Your task to perform on an android device: Add lg ultragear to the cart on bestbuy.com, then select checkout. Image 0: 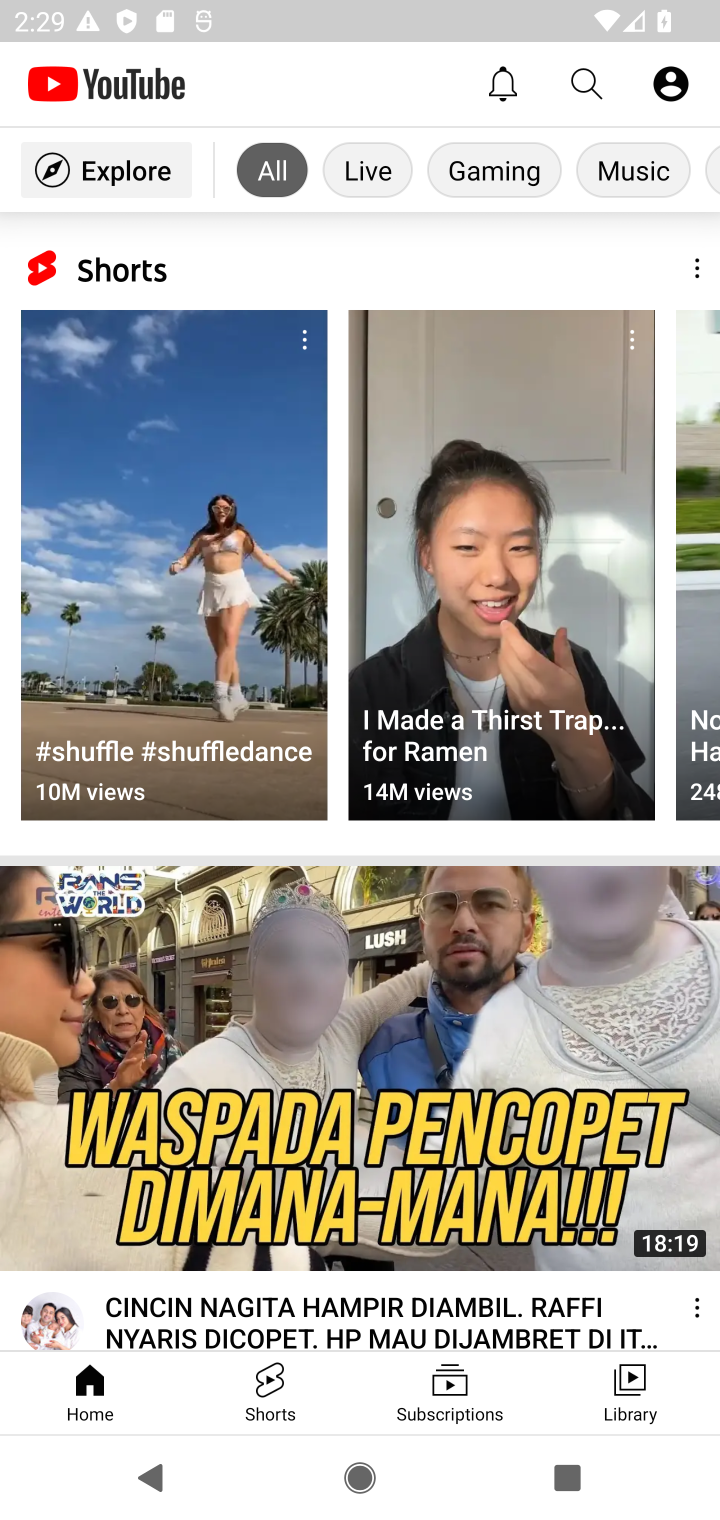
Step 0: press home button
Your task to perform on an android device: Add lg ultragear to the cart on bestbuy.com, then select checkout. Image 1: 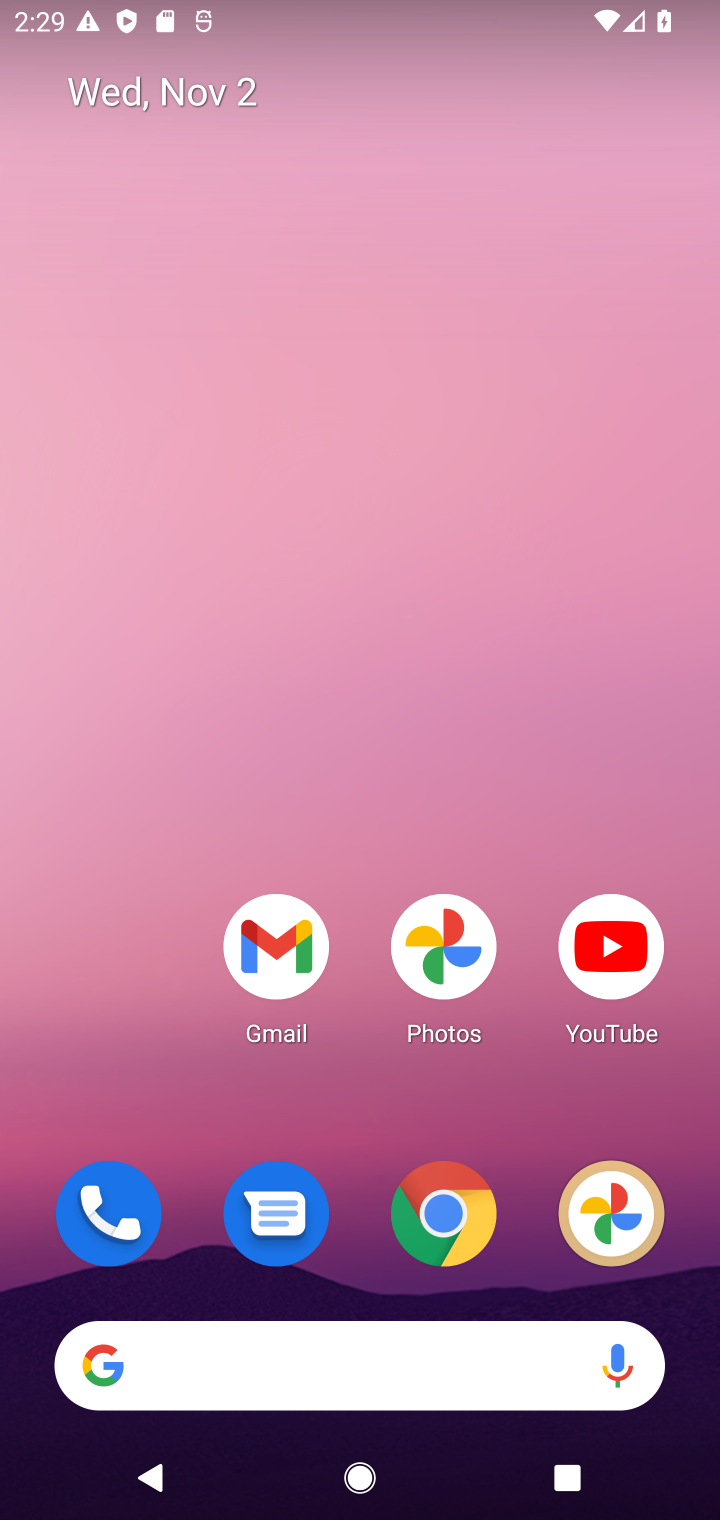
Step 1: click (442, 1203)
Your task to perform on an android device: Add lg ultragear to the cart on bestbuy.com, then select checkout. Image 2: 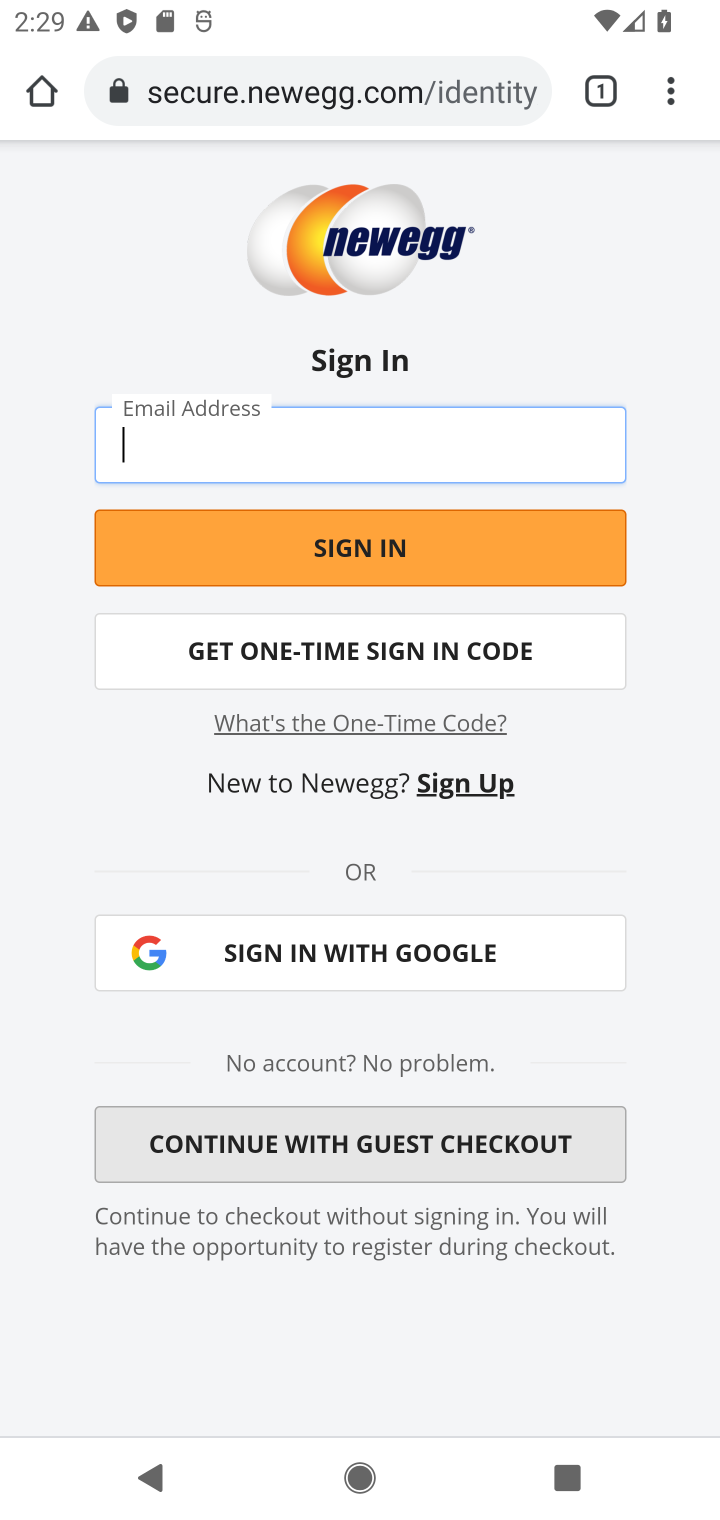
Step 2: click (295, 104)
Your task to perform on an android device: Add lg ultragear to the cart on bestbuy.com, then select checkout. Image 3: 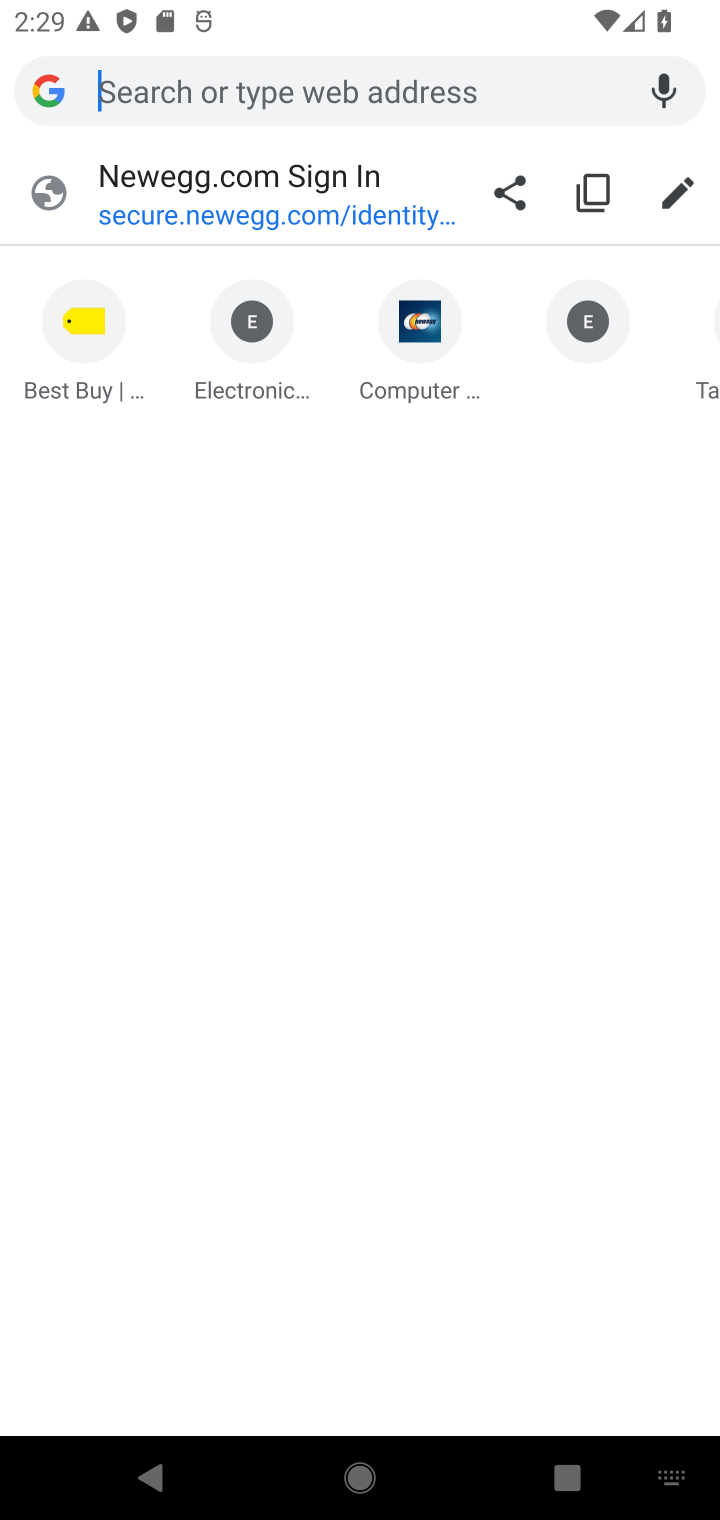
Step 3: click (77, 342)
Your task to perform on an android device: Add lg ultragear to the cart on bestbuy.com, then select checkout. Image 4: 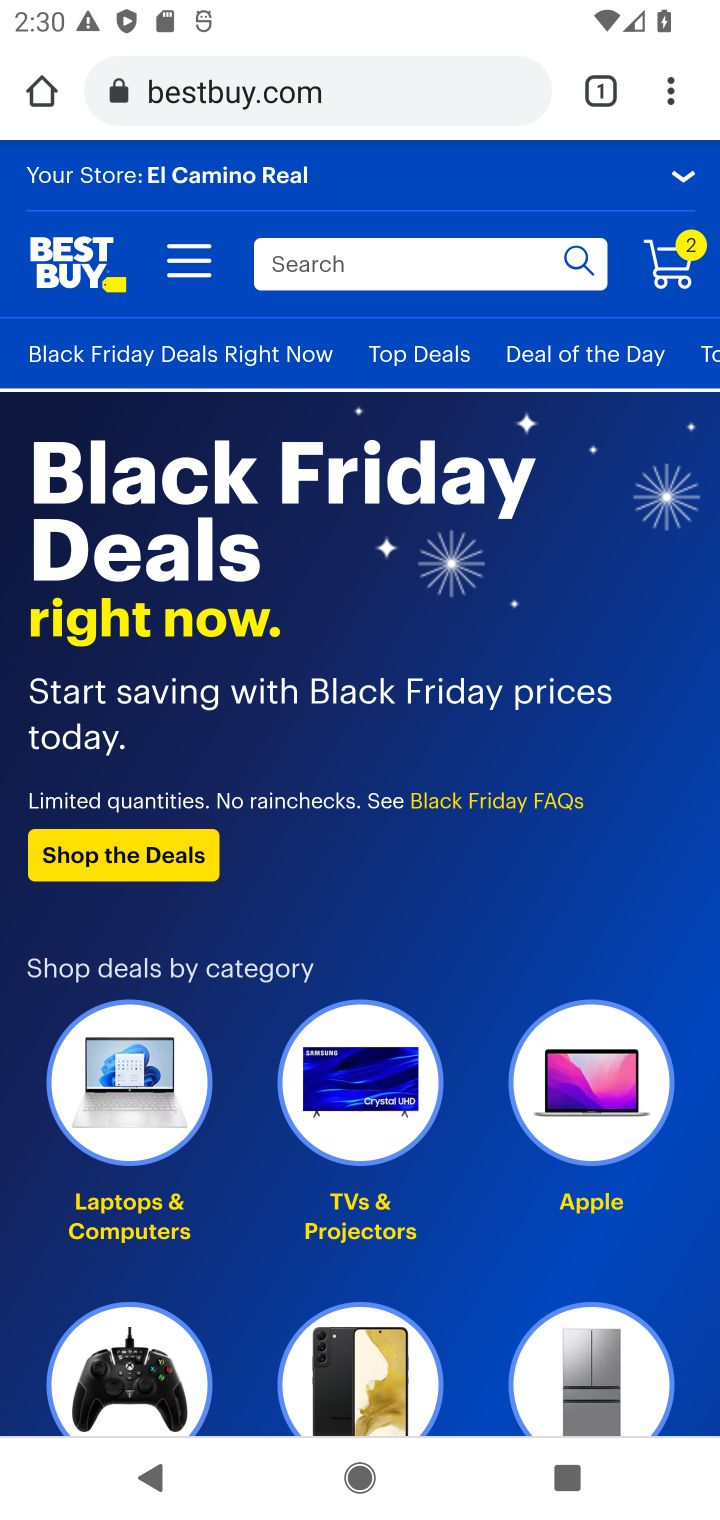
Step 4: click (456, 274)
Your task to perform on an android device: Add lg ultragear to the cart on bestbuy.com, then select checkout. Image 5: 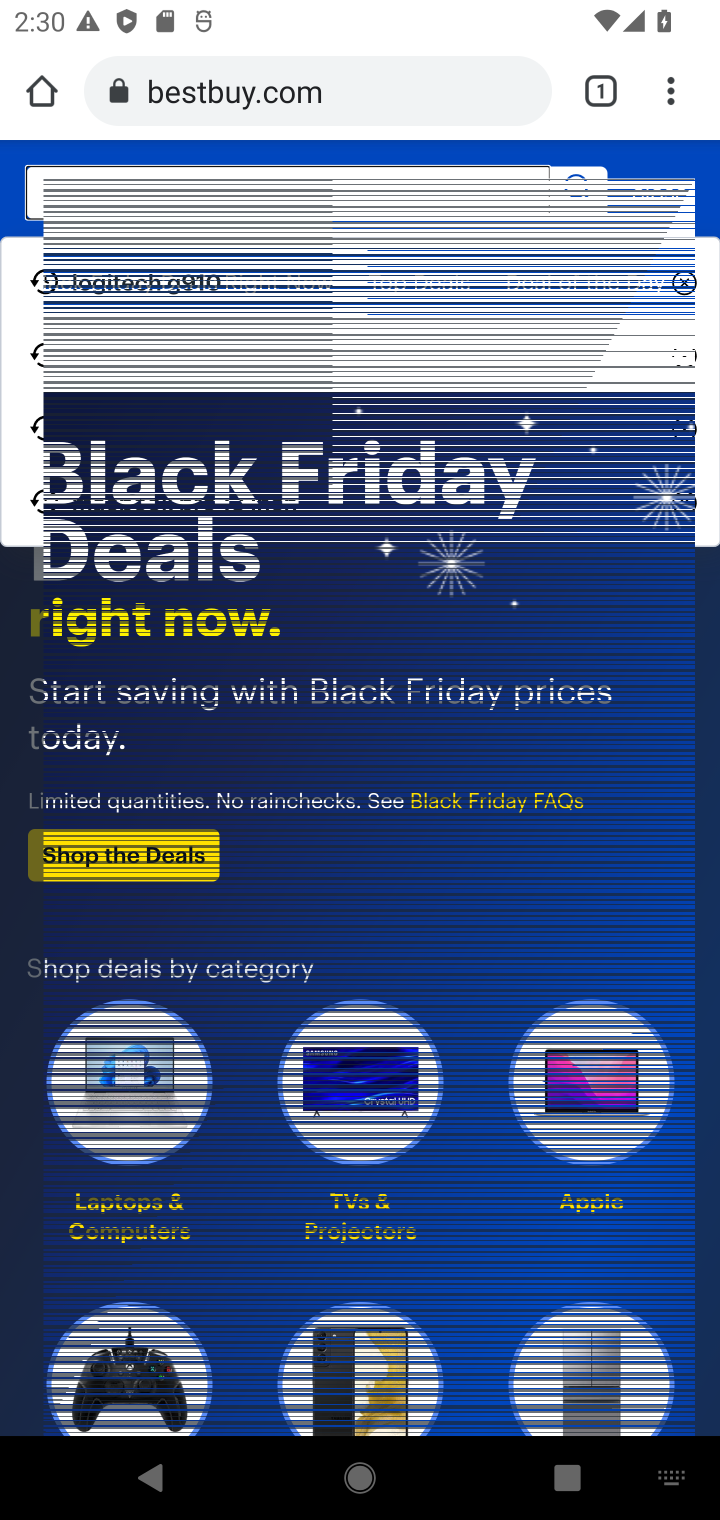
Step 5: type "lg ultragear"
Your task to perform on an android device: Add lg ultragear to the cart on bestbuy.com, then select checkout. Image 6: 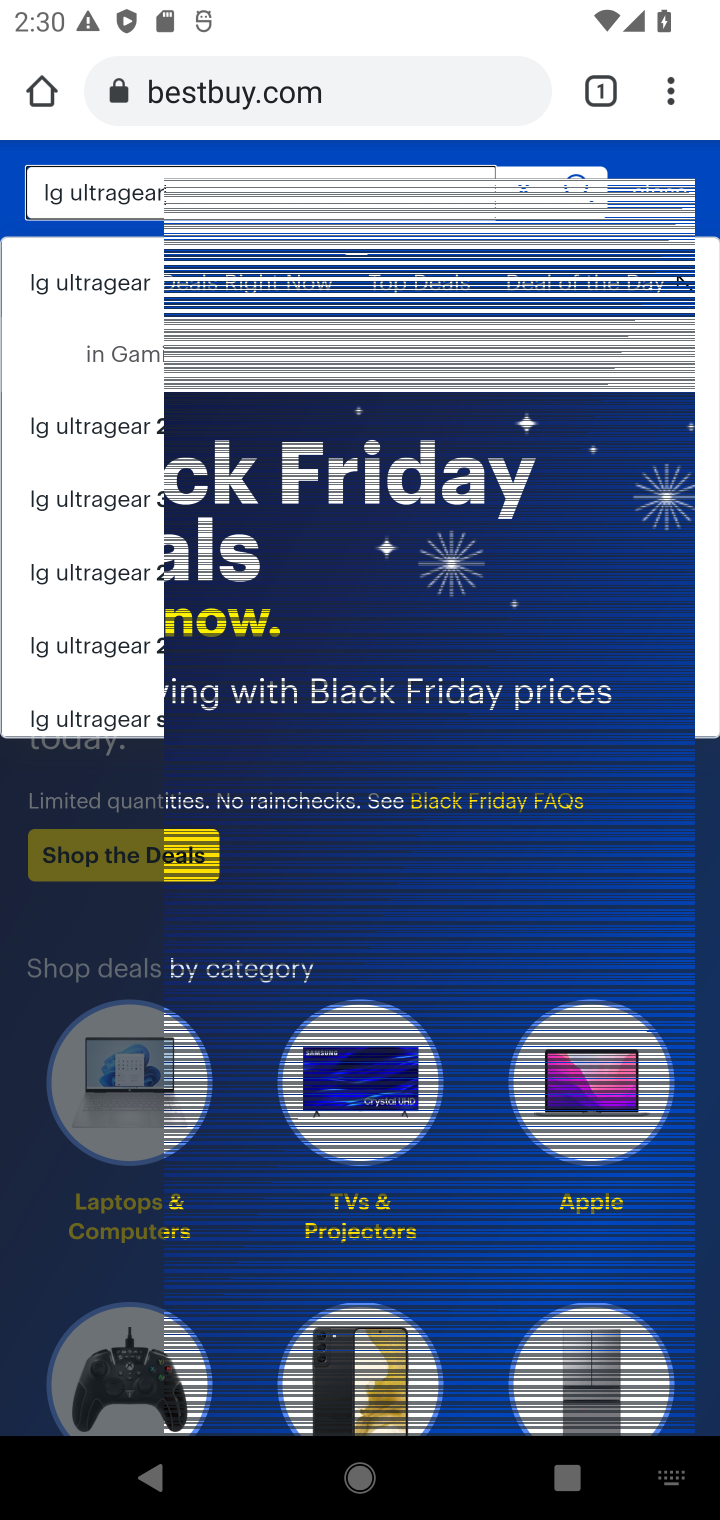
Step 6: click (97, 277)
Your task to perform on an android device: Add lg ultragear to the cart on bestbuy.com, then select checkout. Image 7: 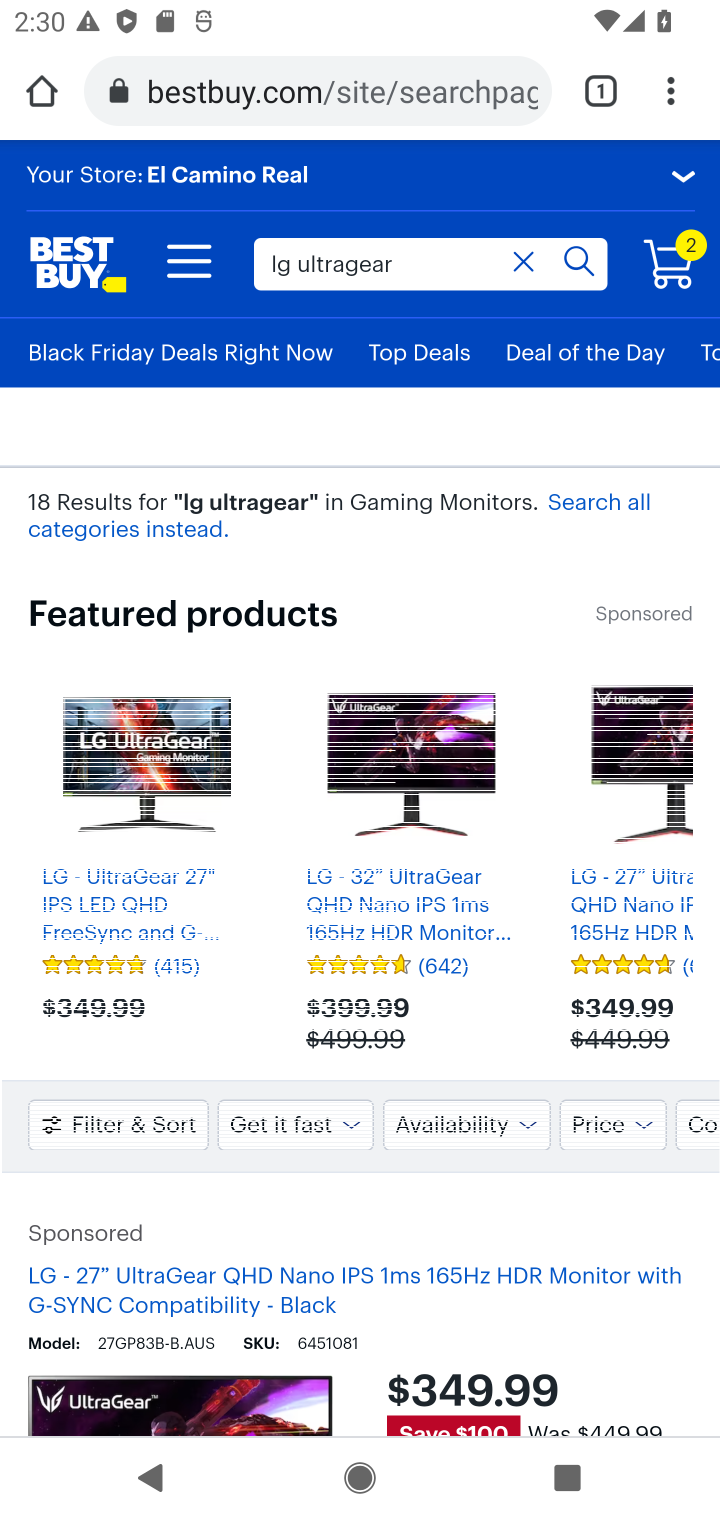
Step 7: click (249, 1406)
Your task to perform on an android device: Add lg ultragear to the cart on bestbuy.com, then select checkout. Image 8: 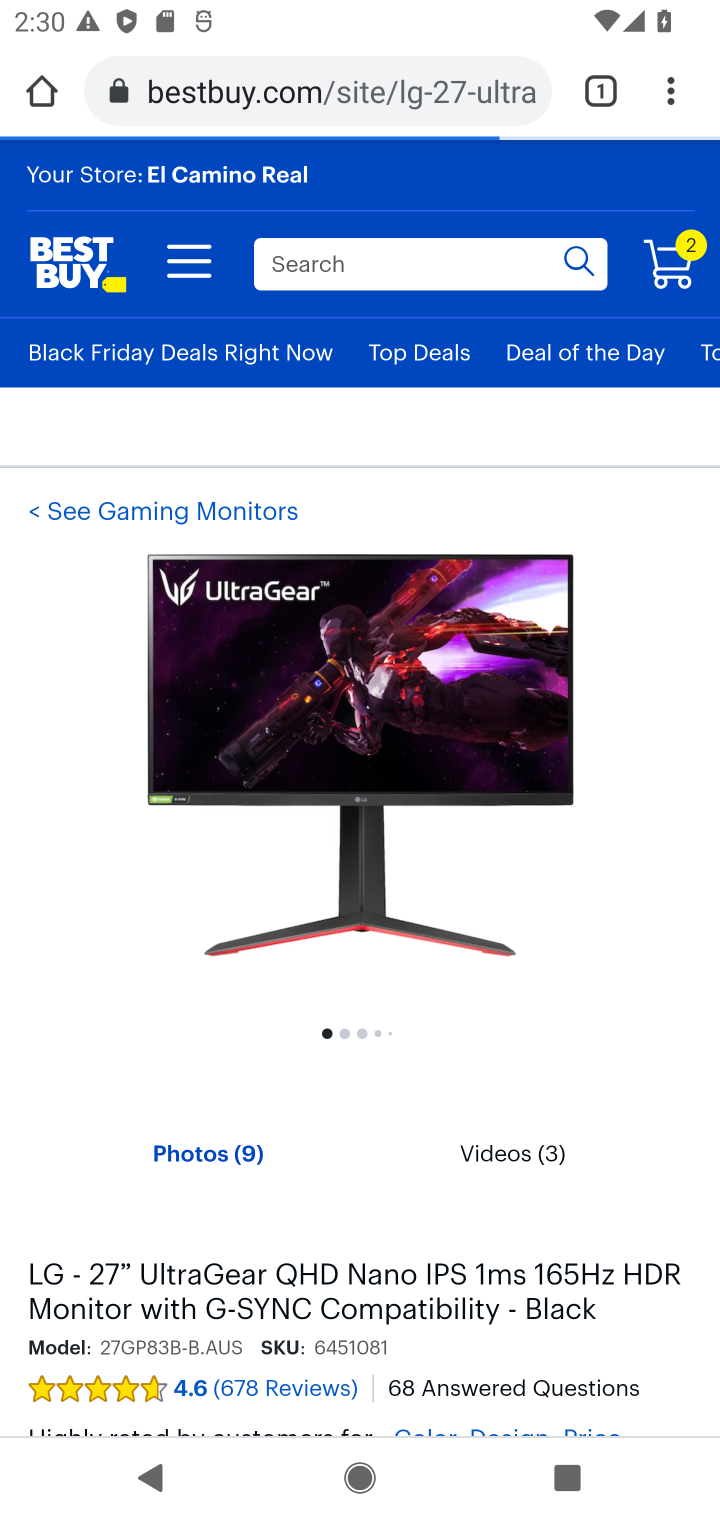
Step 8: drag from (474, 1319) to (332, 72)
Your task to perform on an android device: Add lg ultragear to the cart on bestbuy.com, then select checkout. Image 9: 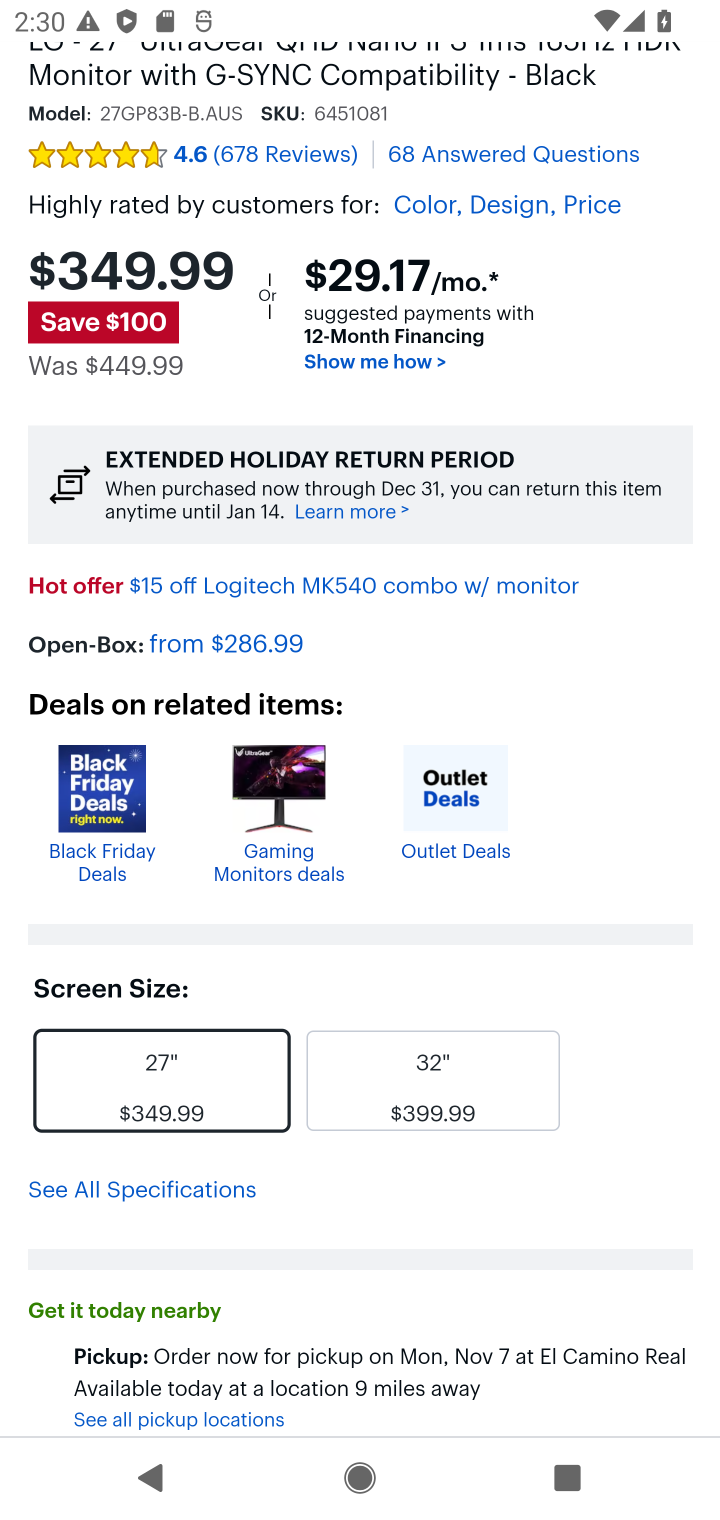
Step 9: drag from (517, 1200) to (398, 312)
Your task to perform on an android device: Add lg ultragear to the cart on bestbuy.com, then select checkout. Image 10: 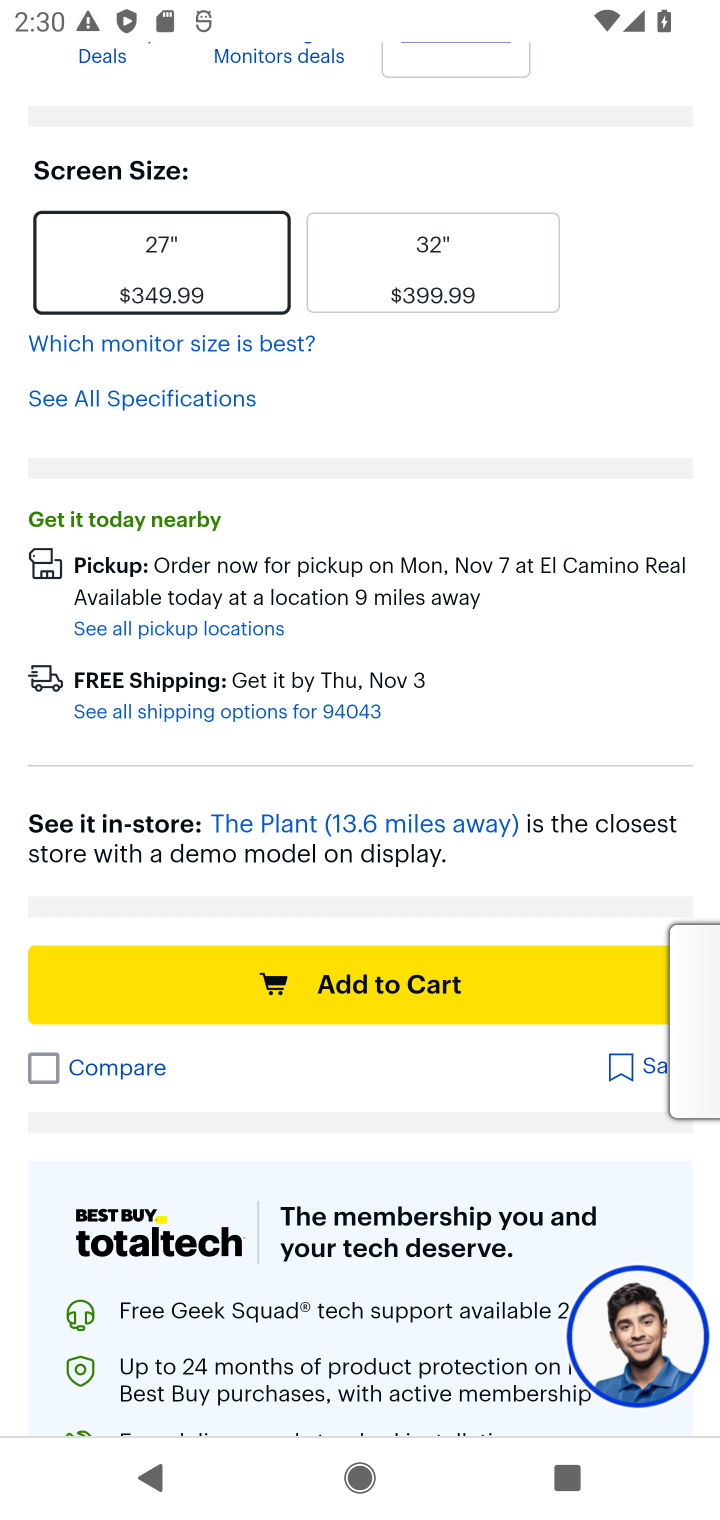
Step 10: click (332, 995)
Your task to perform on an android device: Add lg ultragear to the cart on bestbuy.com, then select checkout. Image 11: 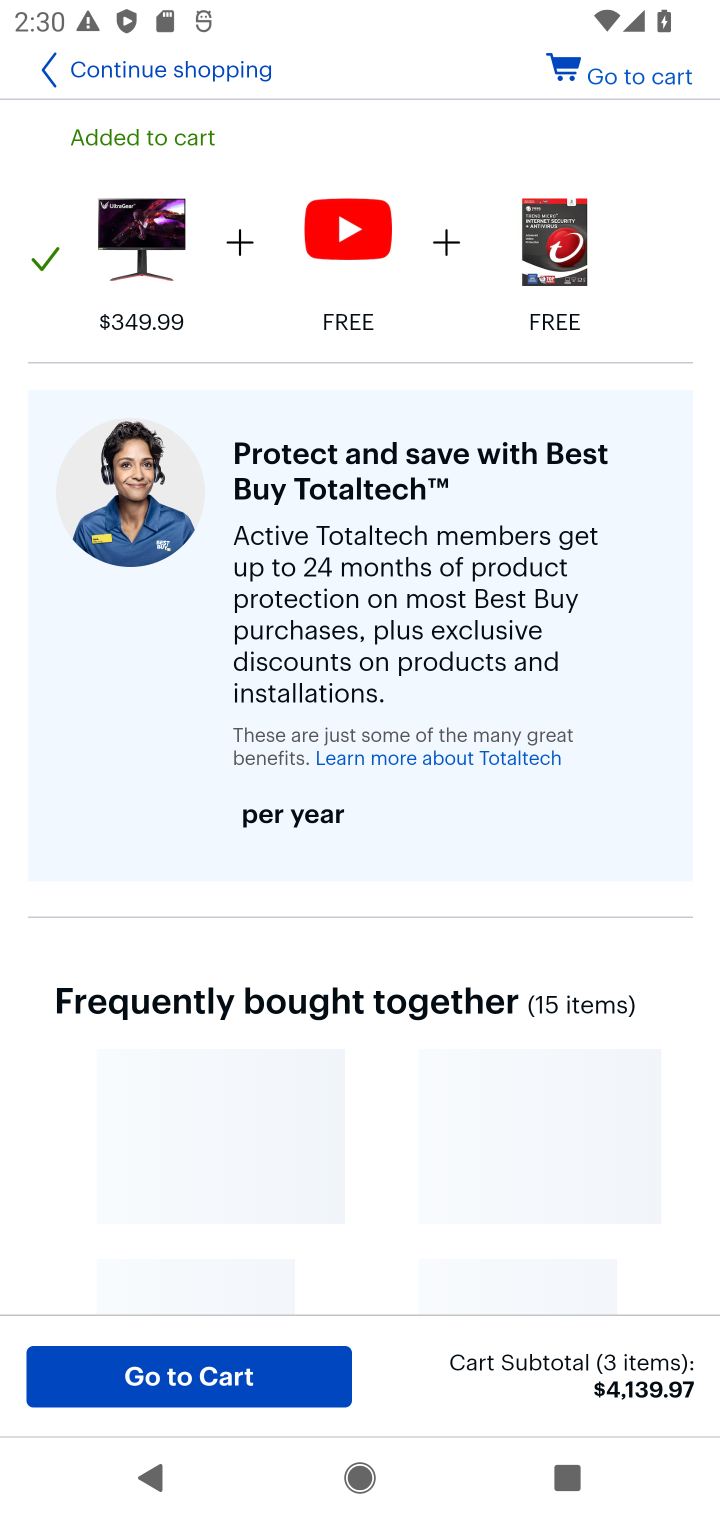
Step 11: click (219, 1377)
Your task to perform on an android device: Add lg ultragear to the cart on bestbuy.com, then select checkout. Image 12: 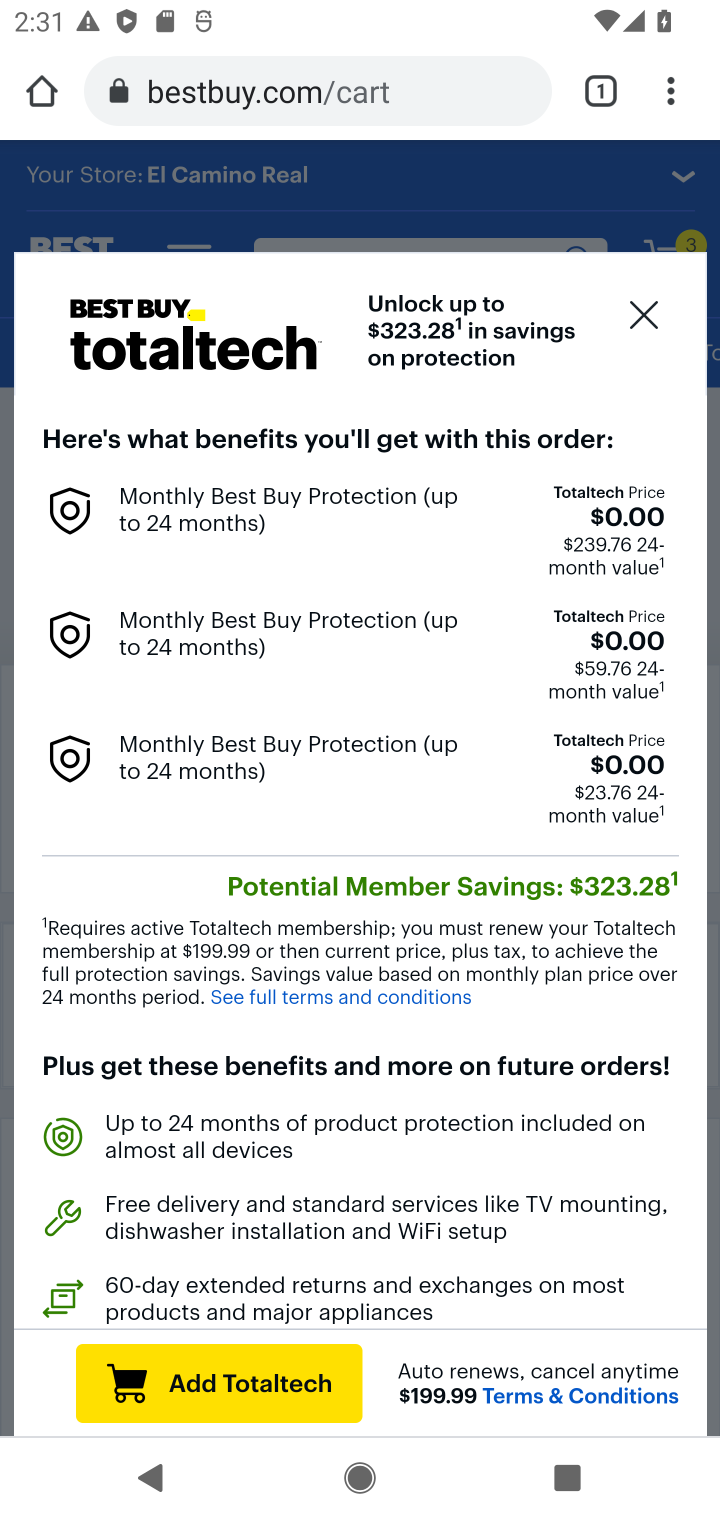
Step 12: click (657, 323)
Your task to perform on an android device: Add lg ultragear to the cart on bestbuy.com, then select checkout. Image 13: 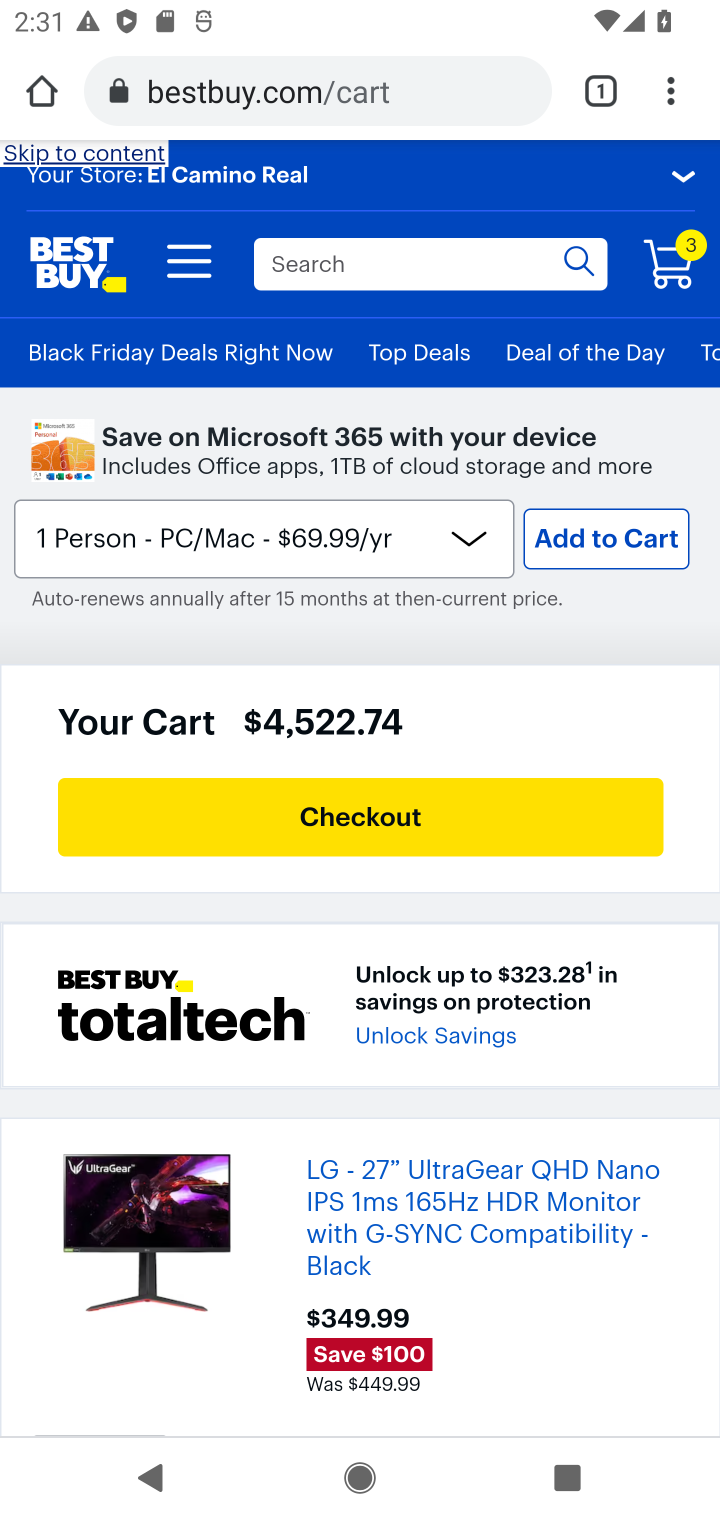
Step 13: click (316, 809)
Your task to perform on an android device: Add lg ultragear to the cart on bestbuy.com, then select checkout. Image 14: 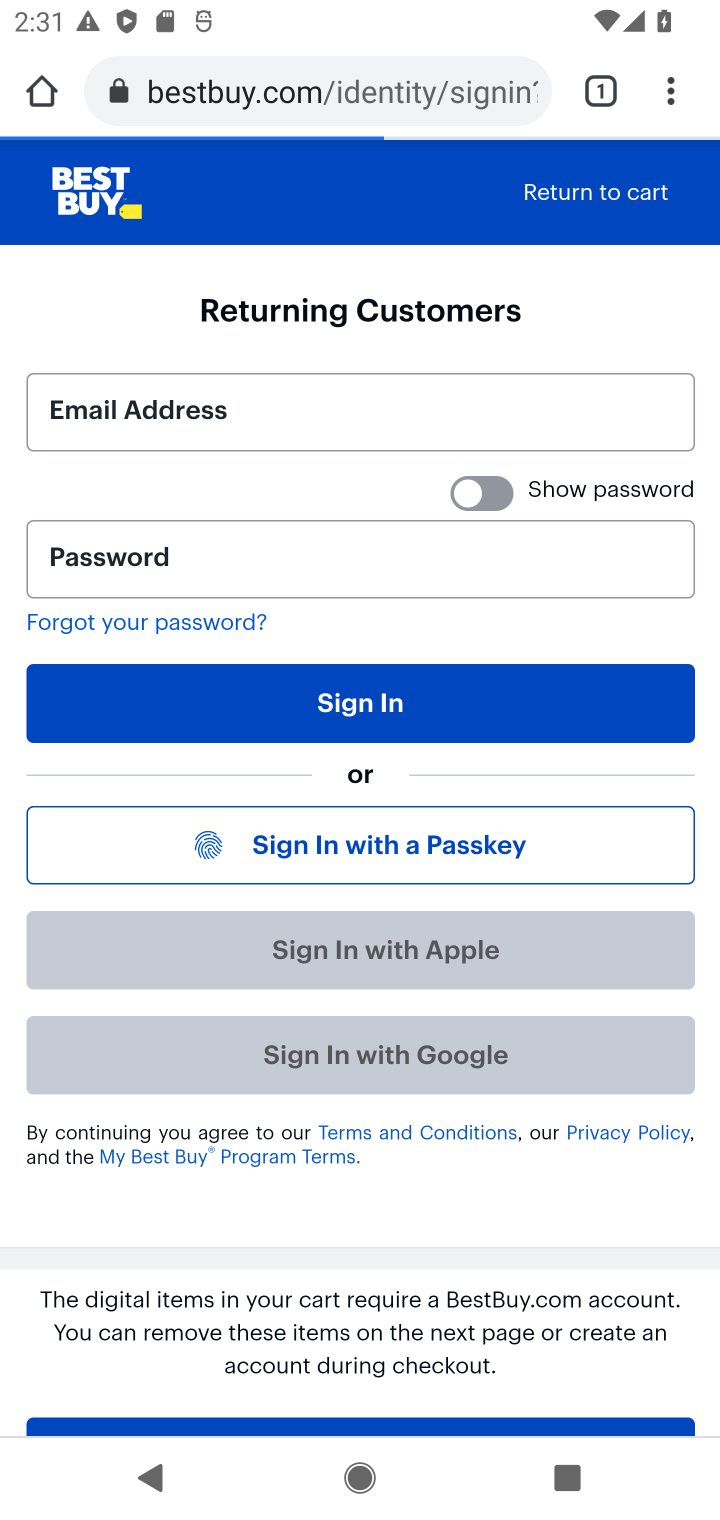
Step 14: task complete